Your task to perform on an android device: Open Google Chrome Image 0: 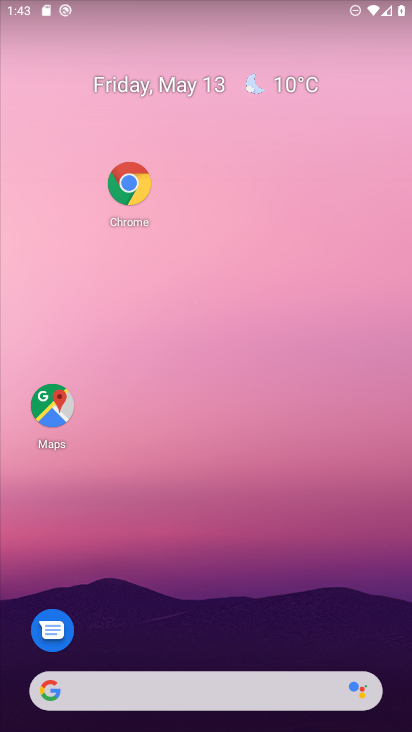
Step 0: click (135, 191)
Your task to perform on an android device: Open Google Chrome Image 1: 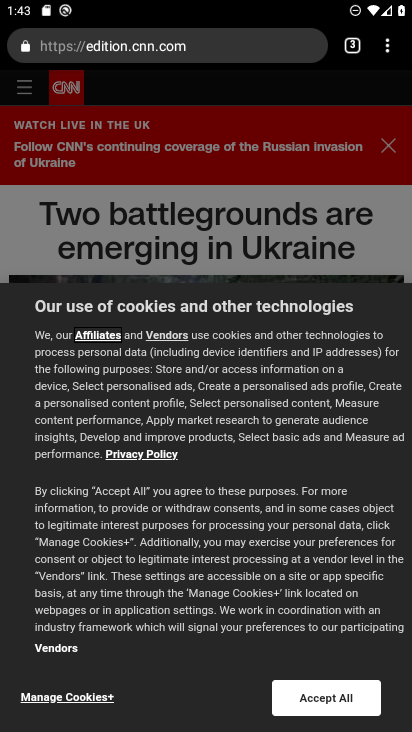
Step 1: task complete